Your task to perform on an android device: Go to wifi settings Image 0: 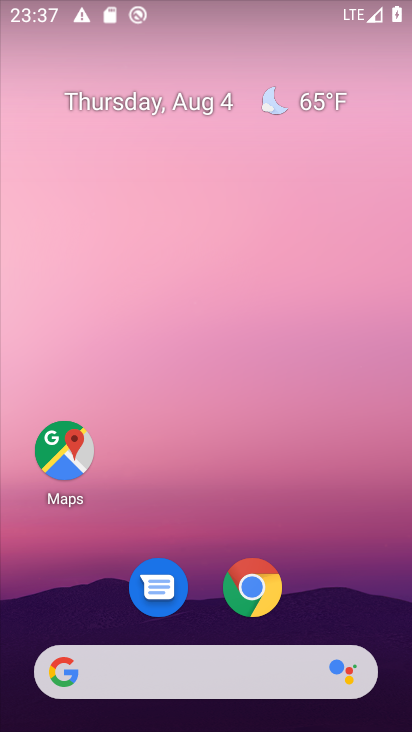
Step 0: drag from (190, 558) to (208, 183)
Your task to perform on an android device: Go to wifi settings Image 1: 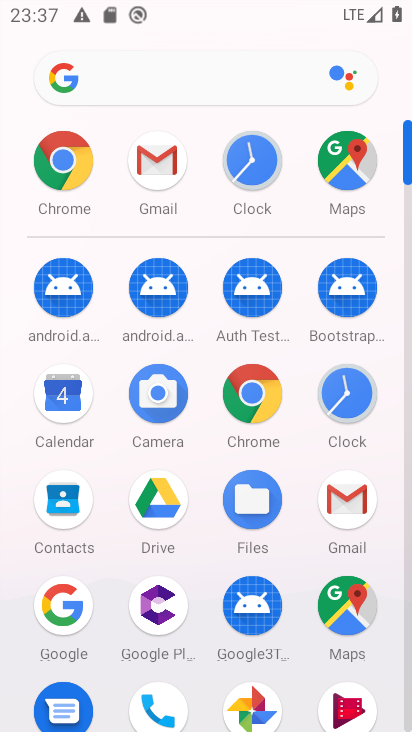
Step 1: drag from (219, 648) to (234, 235)
Your task to perform on an android device: Go to wifi settings Image 2: 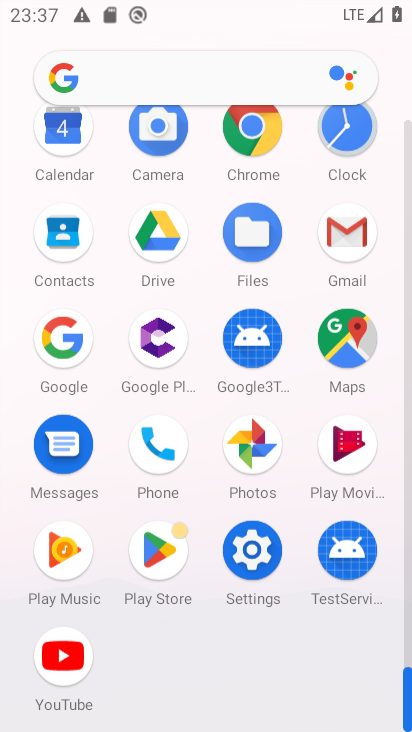
Step 2: click (241, 192)
Your task to perform on an android device: Go to wifi settings Image 3: 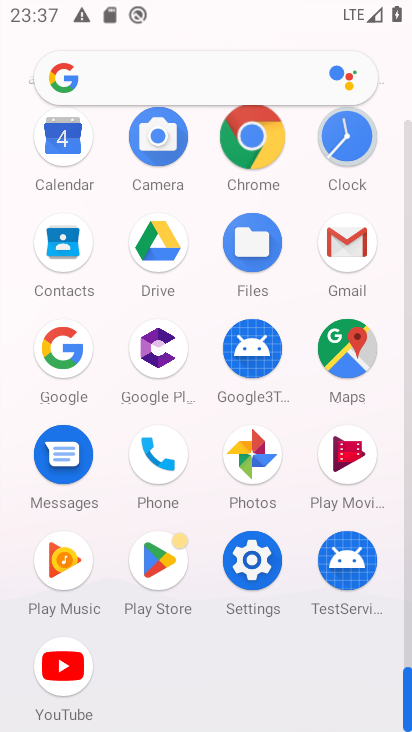
Step 3: click (243, 572)
Your task to perform on an android device: Go to wifi settings Image 4: 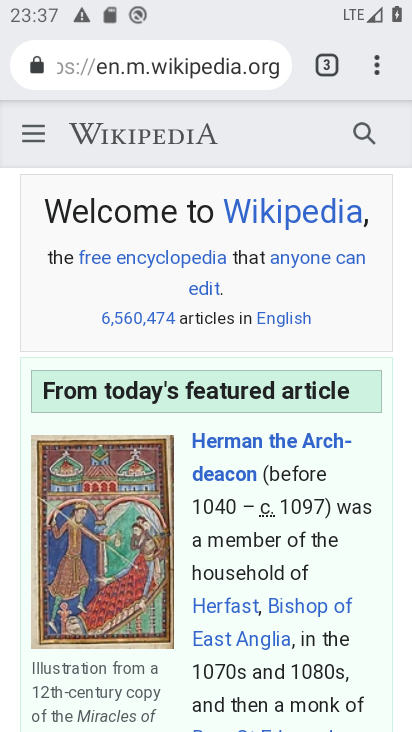
Step 4: press back button
Your task to perform on an android device: Go to wifi settings Image 5: 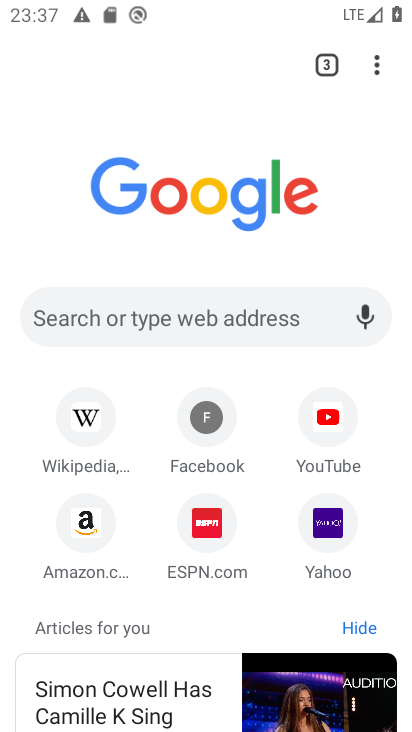
Step 5: press home button
Your task to perform on an android device: Go to wifi settings Image 6: 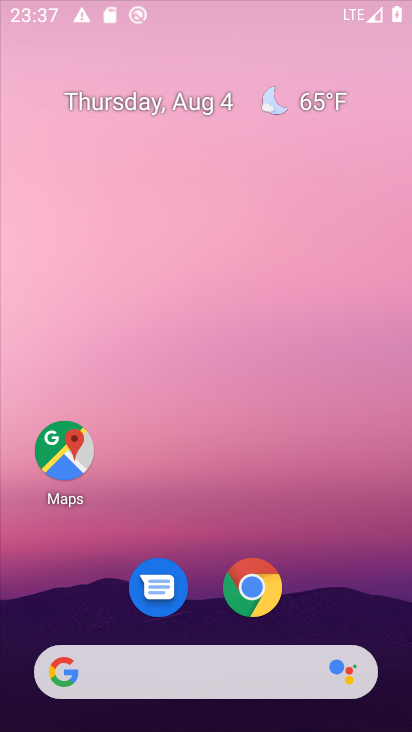
Step 6: drag from (157, 534) to (183, 166)
Your task to perform on an android device: Go to wifi settings Image 7: 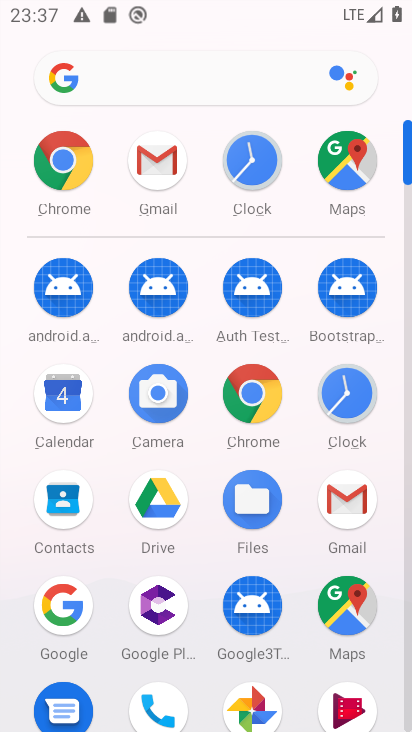
Step 7: drag from (219, 576) to (255, 209)
Your task to perform on an android device: Go to wifi settings Image 8: 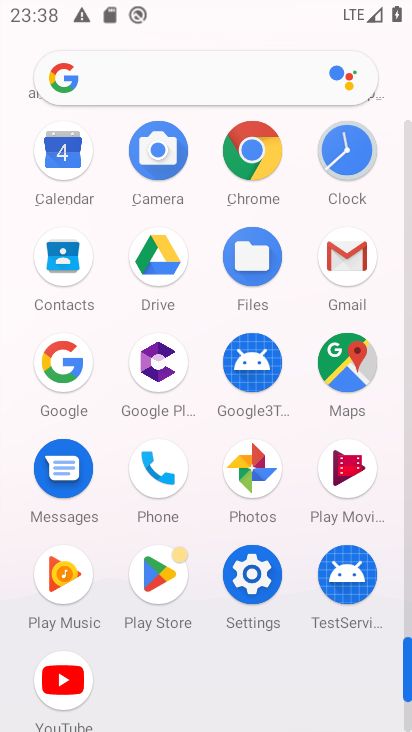
Step 8: click (252, 562)
Your task to perform on an android device: Go to wifi settings Image 9: 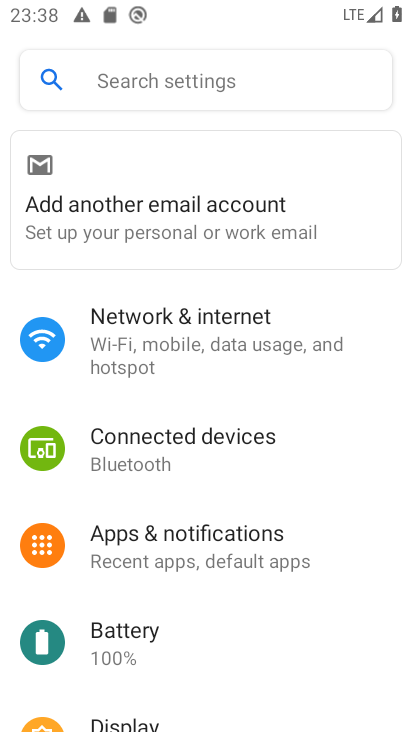
Step 9: click (131, 323)
Your task to perform on an android device: Go to wifi settings Image 10: 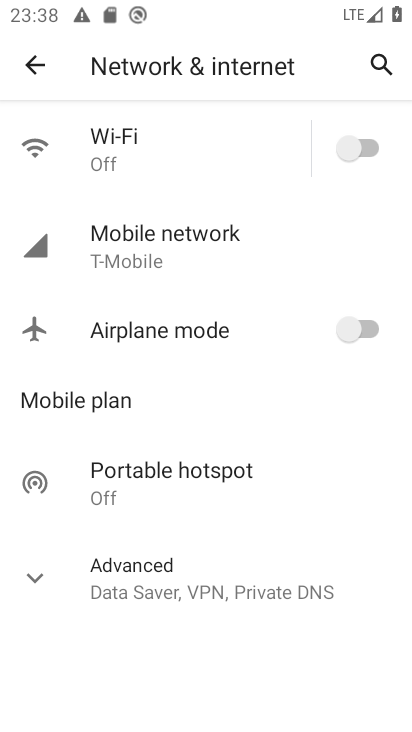
Step 10: click (162, 133)
Your task to perform on an android device: Go to wifi settings Image 11: 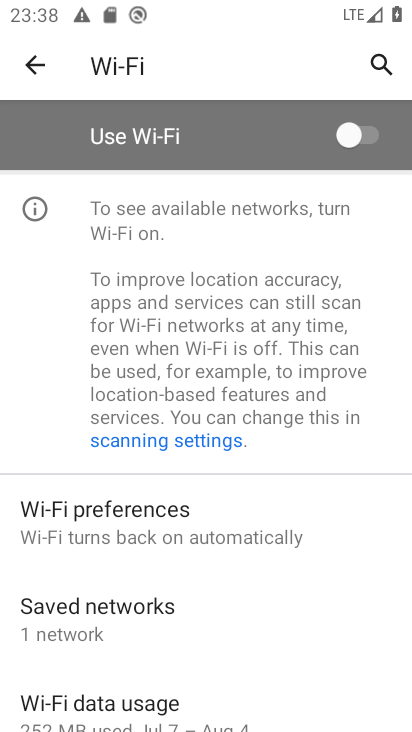
Step 11: task complete